Your task to perform on an android device: Search for the best rated mattress topper on Target. Image 0: 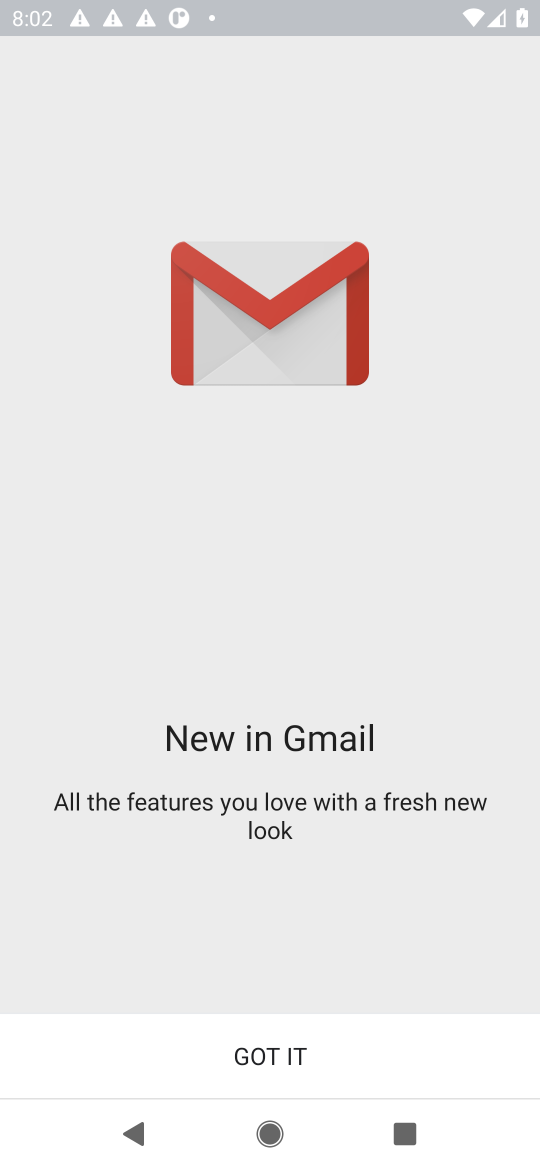
Step 0: press home button
Your task to perform on an android device: Search for the best rated mattress topper on Target. Image 1: 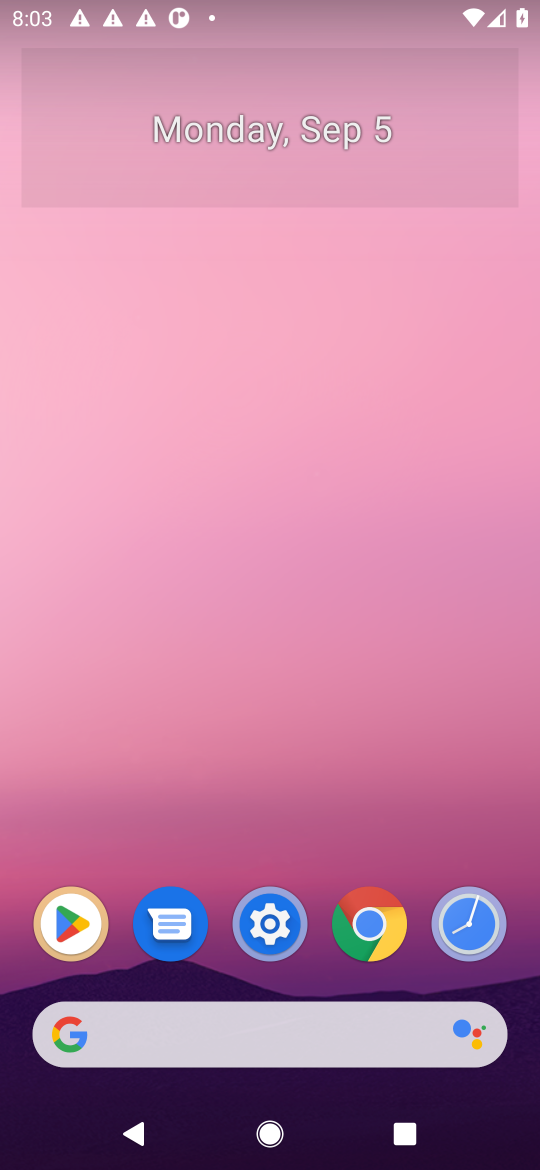
Step 1: click (347, 1026)
Your task to perform on an android device: Search for the best rated mattress topper on Target. Image 2: 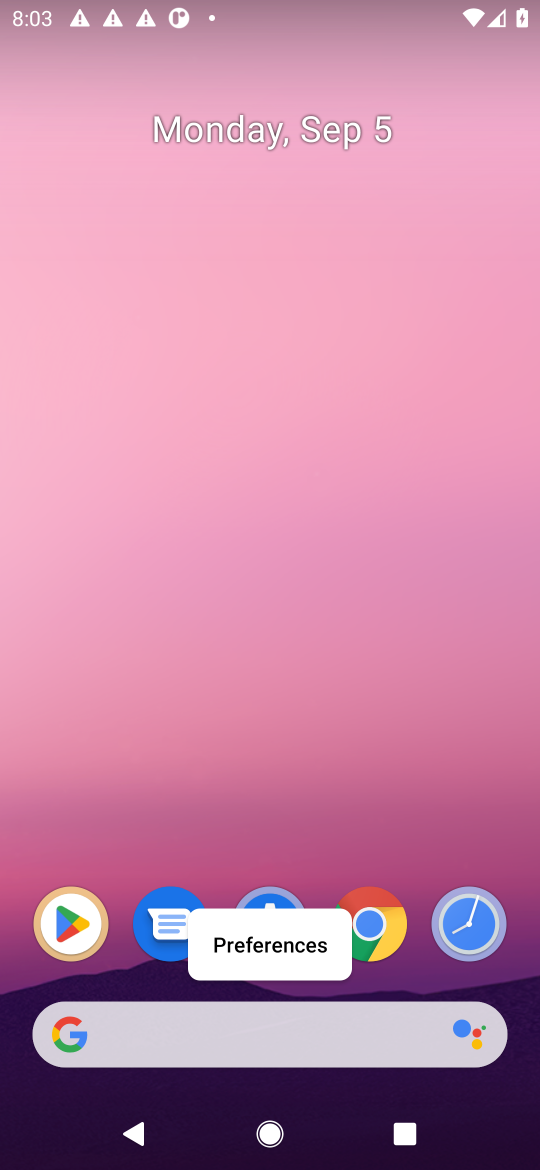
Step 2: click (179, 1031)
Your task to perform on an android device: Search for the best rated mattress topper on Target. Image 3: 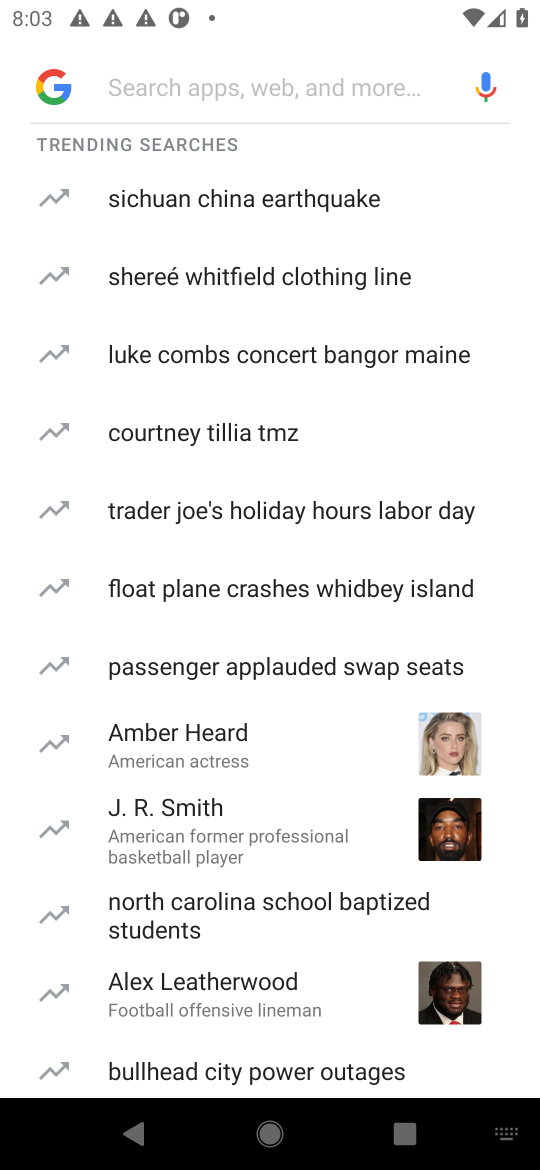
Step 3: type "target"
Your task to perform on an android device: Search for the best rated mattress topper on Target. Image 4: 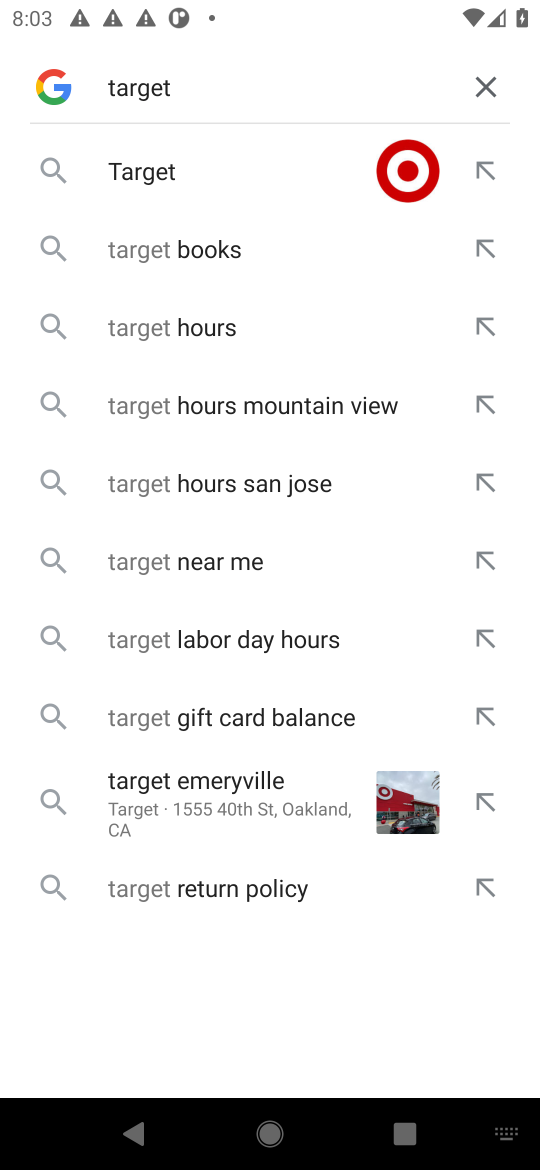
Step 4: press enter
Your task to perform on an android device: Search for the best rated mattress topper on Target. Image 5: 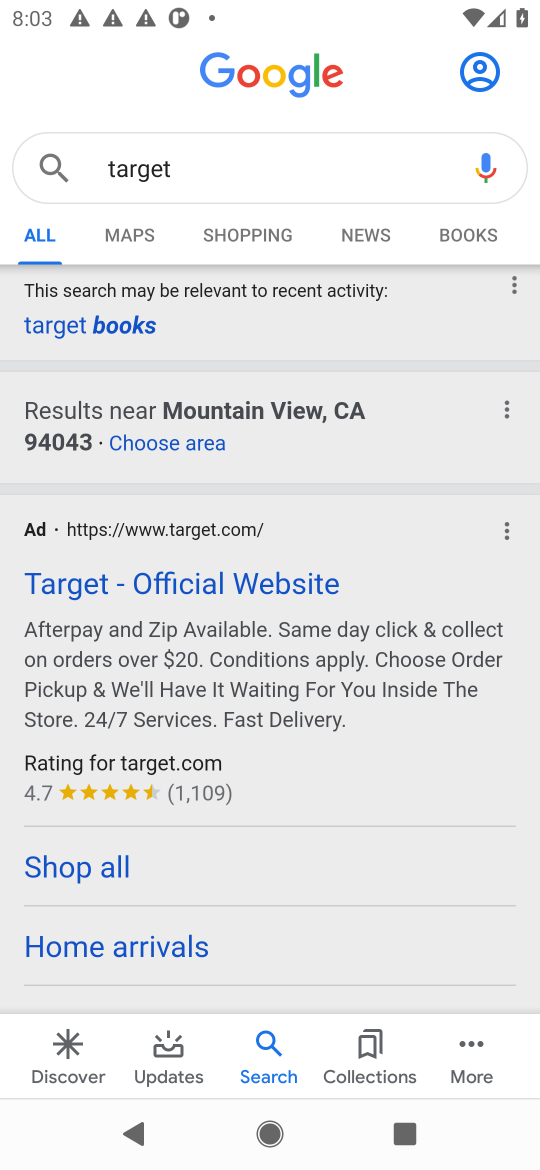
Step 5: click (184, 583)
Your task to perform on an android device: Search for the best rated mattress topper on Target. Image 6: 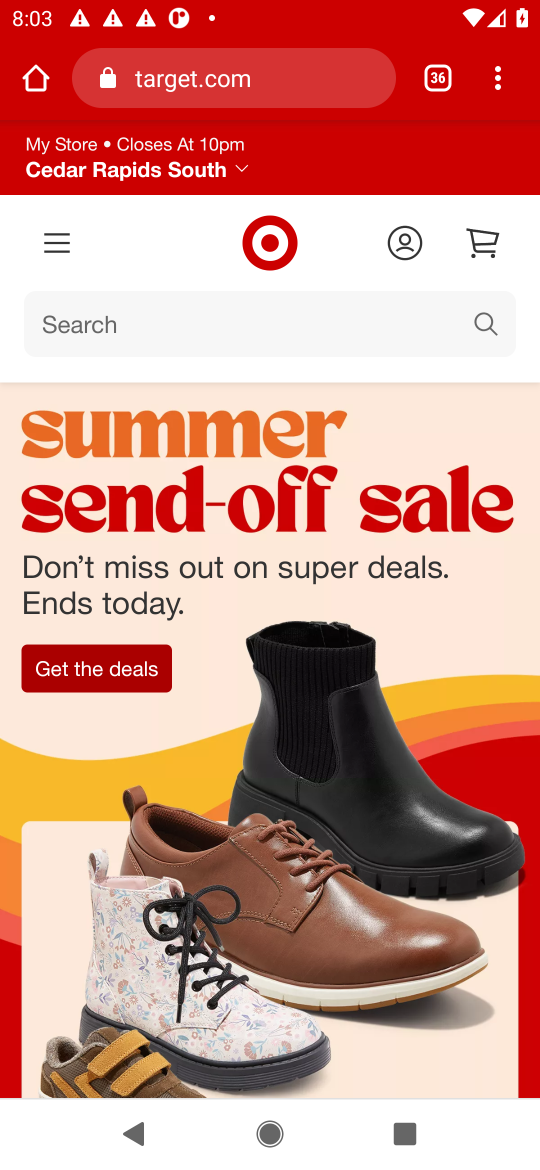
Step 6: click (93, 317)
Your task to perform on an android device: Search for the best rated mattress topper on Target. Image 7: 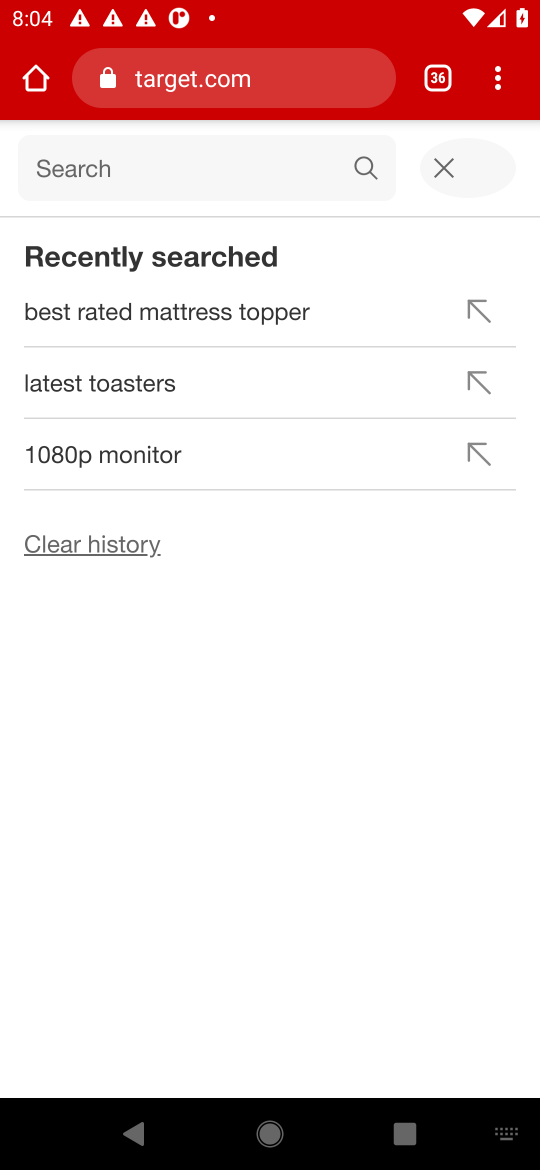
Step 7: type "best rated mattress topper"
Your task to perform on an android device: Search for the best rated mattress topper on Target. Image 8: 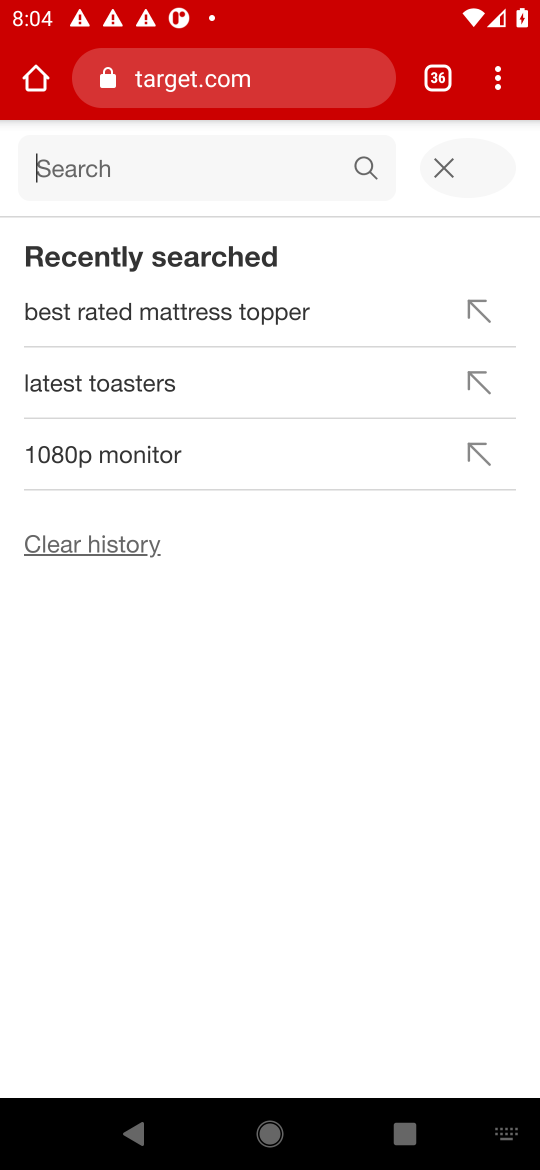
Step 8: press enter
Your task to perform on an android device: Search for the best rated mattress topper on Target. Image 9: 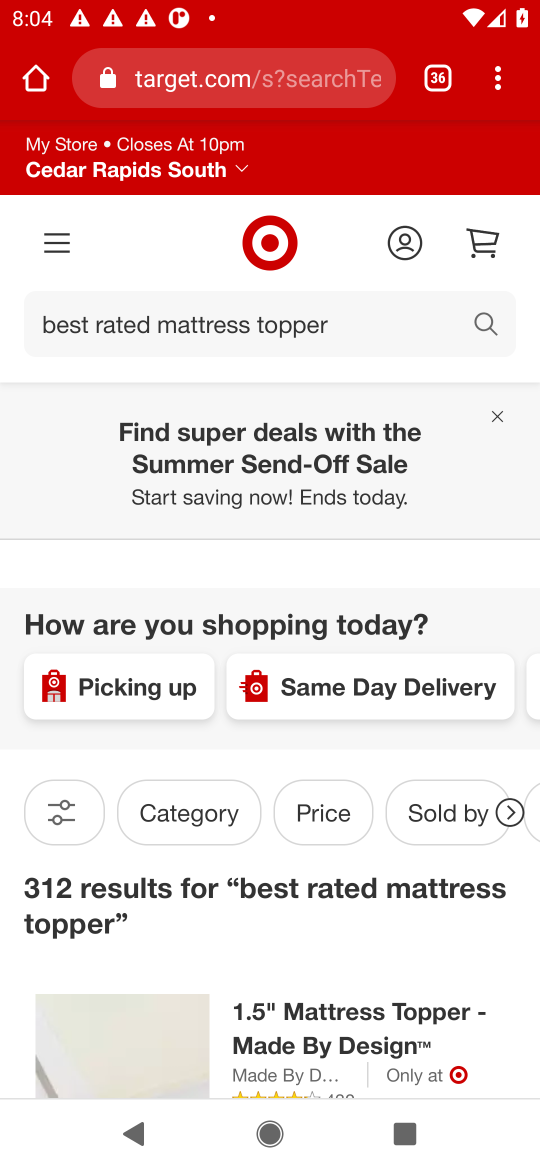
Step 9: task complete